Your task to perform on an android device: Show me productivity apps on the Play Store Image 0: 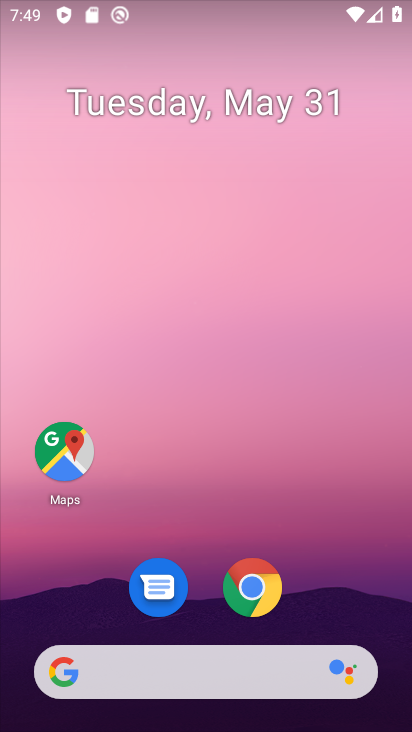
Step 0: drag from (212, 616) to (230, 153)
Your task to perform on an android device: Show me productivity apps on the Play Store Image 1: 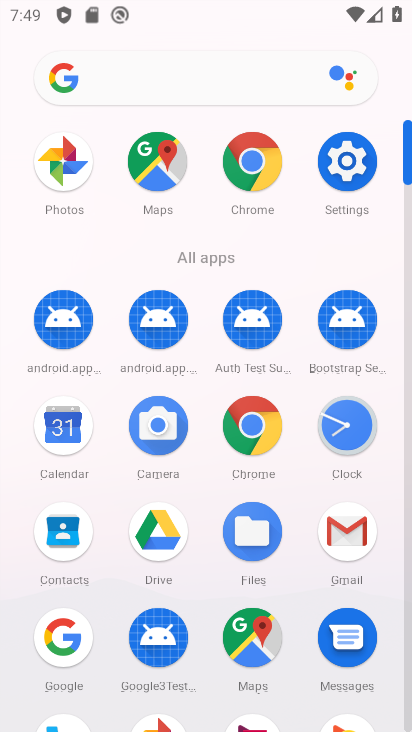
Step 1: drag from (210, 665) to (191, 263)
Your task to perform on an android device: Show me productivity apps on the Play Store Image 2: 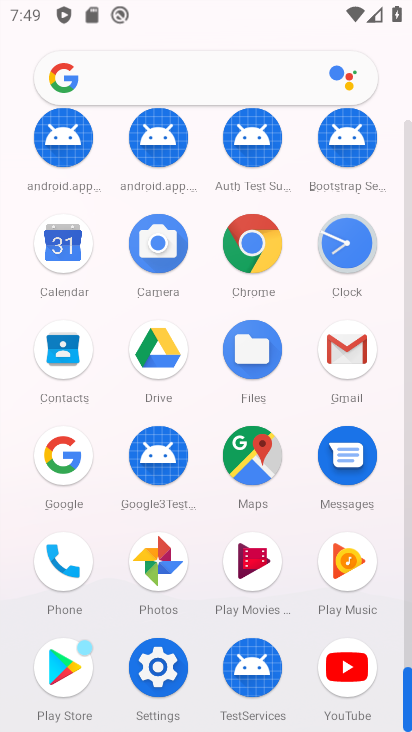
Step 2: click (58, 678)
Your task to perform on an android device: Show me productivity apps on the Play Store Image 3: 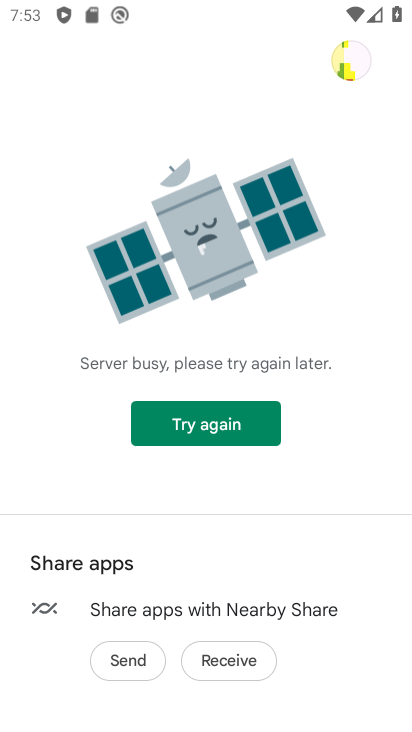
Step 3: task complete